Your task to perform on an android device: Go to settings Image 0: 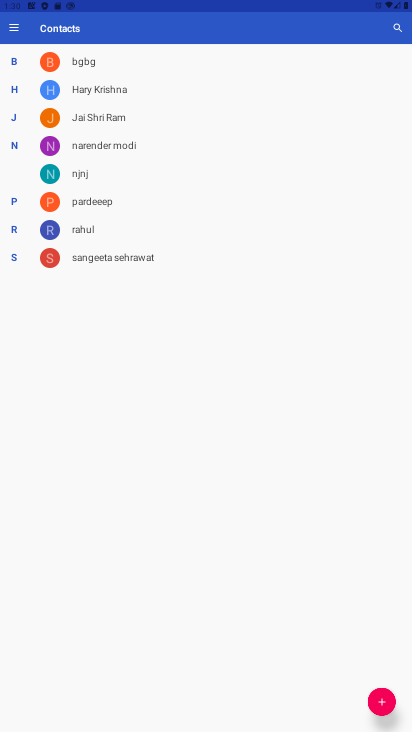
Step 0: press home button
Your task to perform on an android device: Go to settings Image 1: 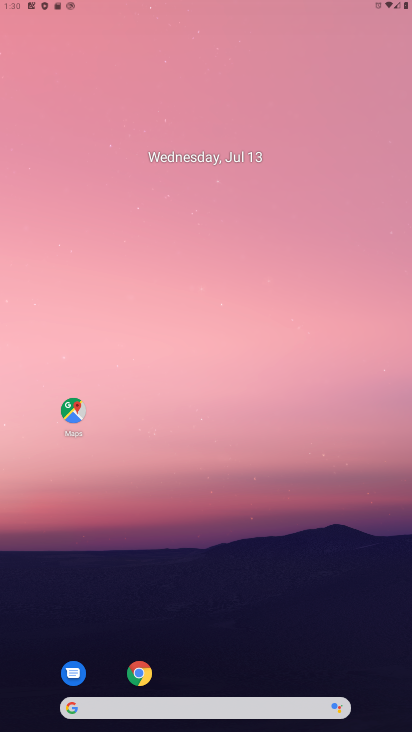
Step 1: drag from (219, 668) to (256, 164)
Your task to perform on an android device: Go to settings Image 2: 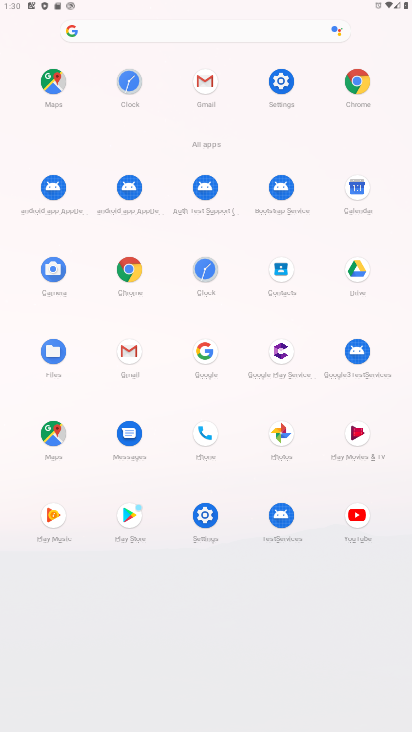
Step 2: click (204, 523)
Your task to perform on an android device: Go to settings Image 3: 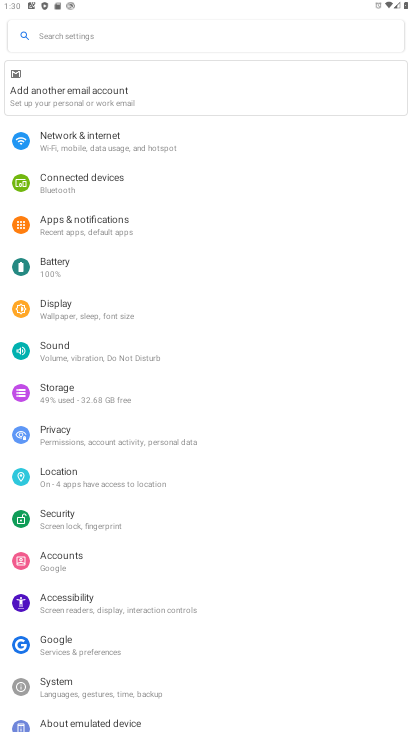
Step 3: task complete